Your task to perform on an android device: Open battery settings Image 0: 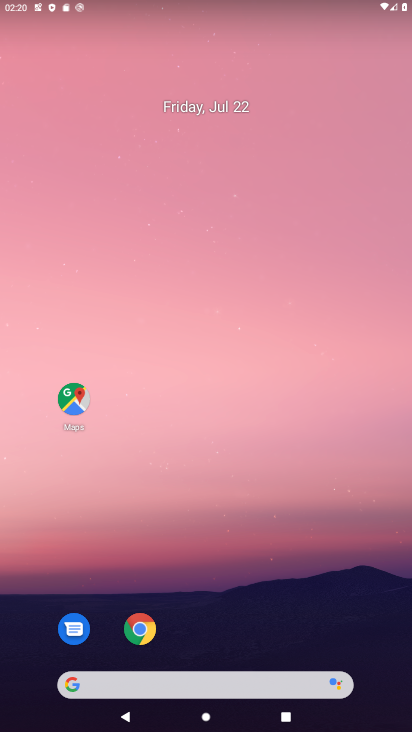
Step 0: drag from (54, 537) to (266, 41)
Your task to perform on an android device: Open battery settings Image 1: 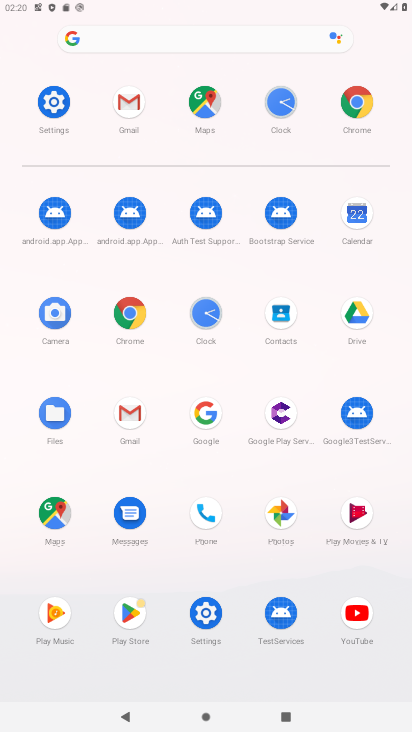
Step 1: click (42, 103)
Your task to perform on an android device: Open battery settings Image 2: 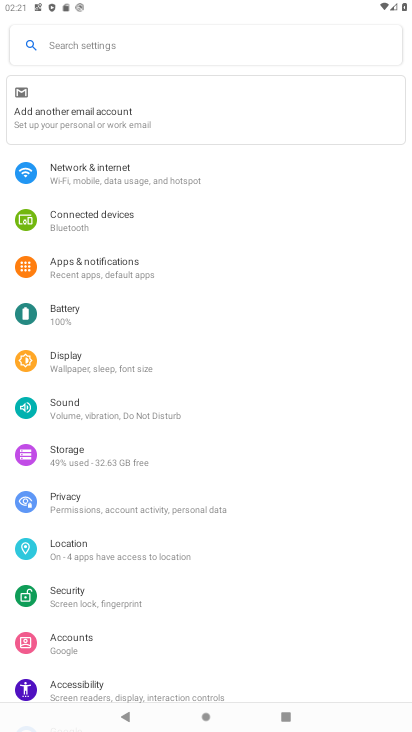
Step 2: click (79, 310)
Your task to perform on an android device: Open battery settings Image 3: 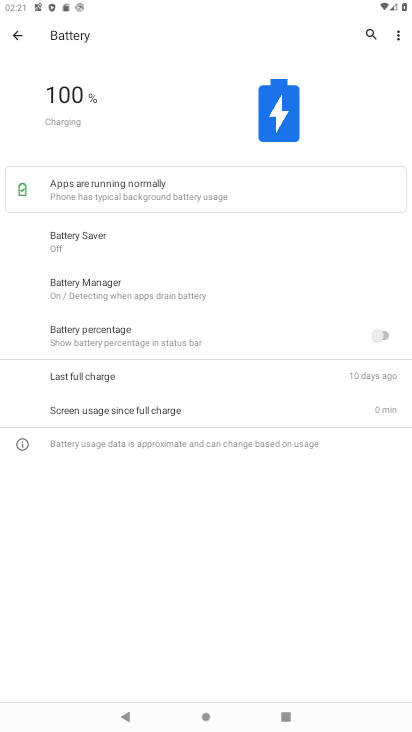
Step 3: task complete